Your task to perform on an android device: Open battery settings Image 0: 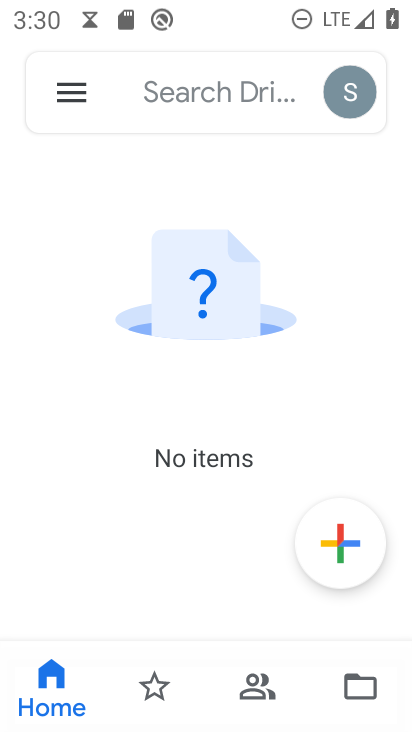
Step 0: press home button
Your task to perform on an android device: Open battery settings Image 1: 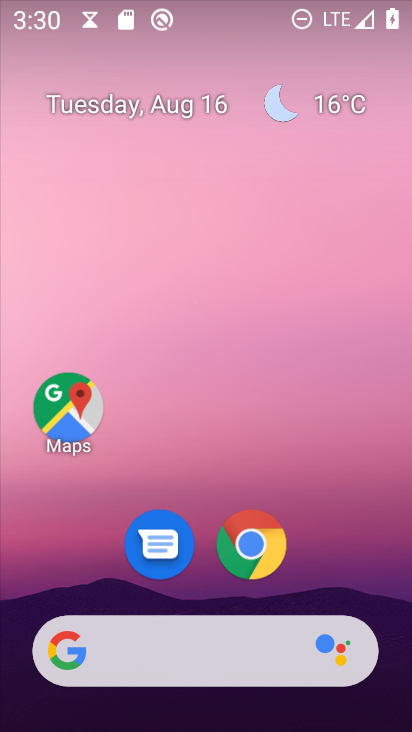
Step 1: drag from (173, 681) to (218, 118)
Your task to perform on an android device: Open battery settings Image 2: 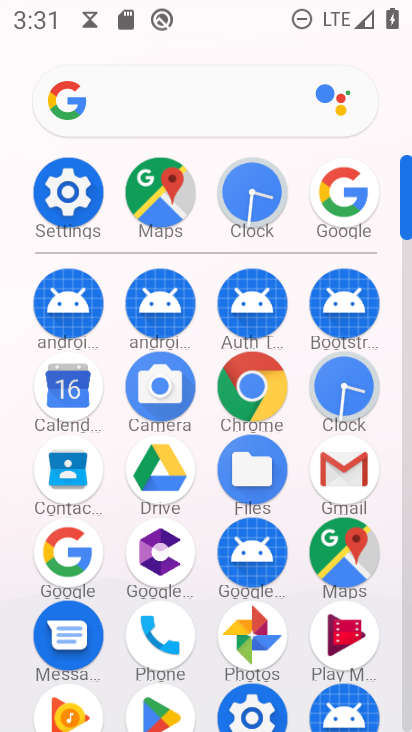
Step 2: click (66, 195)
Your task to perform on an android device: Open battery settings Image 3: 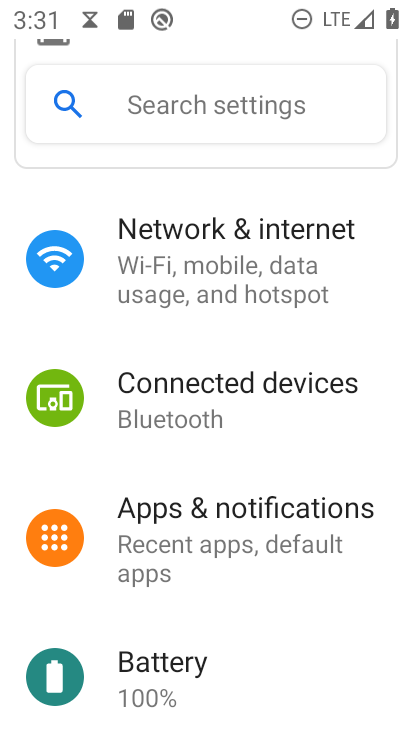
Step 3: drag from (211, 596) to (256, 499)
Your task to perform on an android device: Open battery settings Image 4: 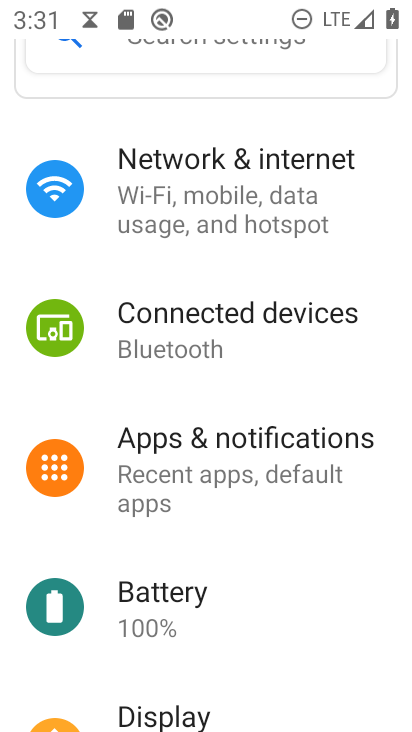
Step 4: click (164, 604)
Your task to perform on an android device: Open battery settings Image 5: 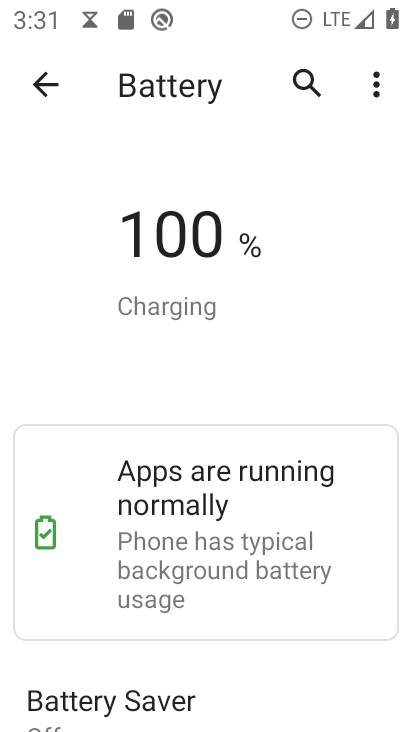
Step 5: task complete